Your task to perform on an android device: turn on the 24-hour format for clock Image 0: 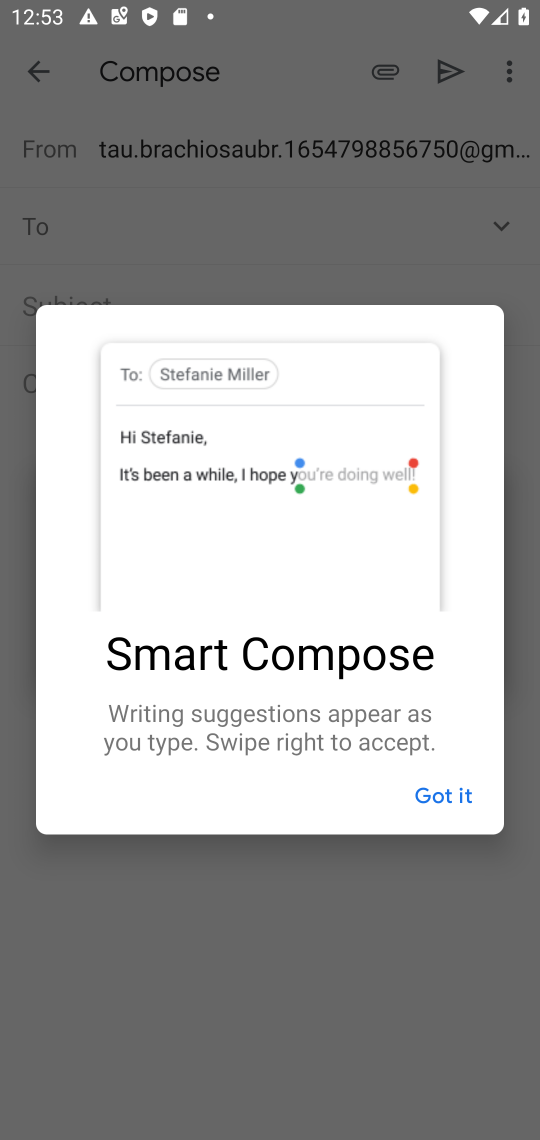
Step 0: press home button
Your task to perform on an android device: turn on the 24-hour format for clock Image 1: 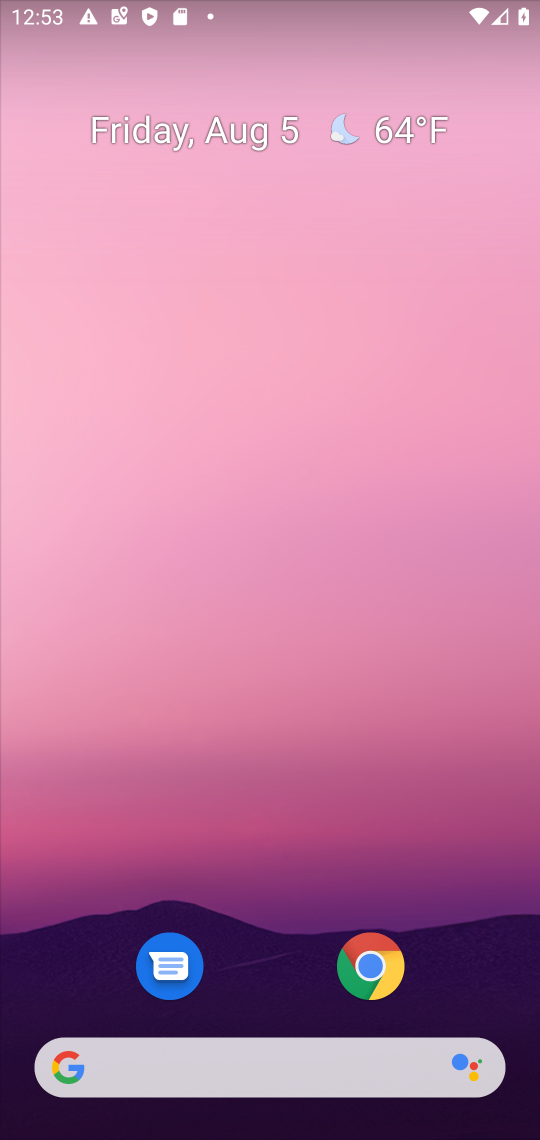
Step 1: drag from (288, 898) to (251, 26)
Your task to perform on an android device: turn on the 24-hour format for clock Image 2: 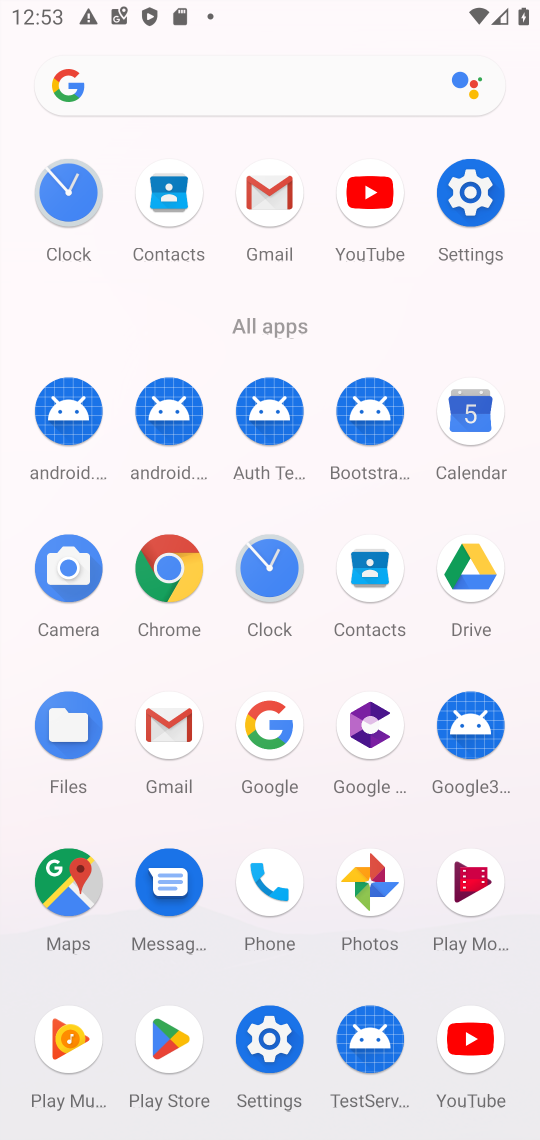
Step 2: click (81, 207)
Your task to perform on an android device: turn on the 24-hour format for clock Image 3: 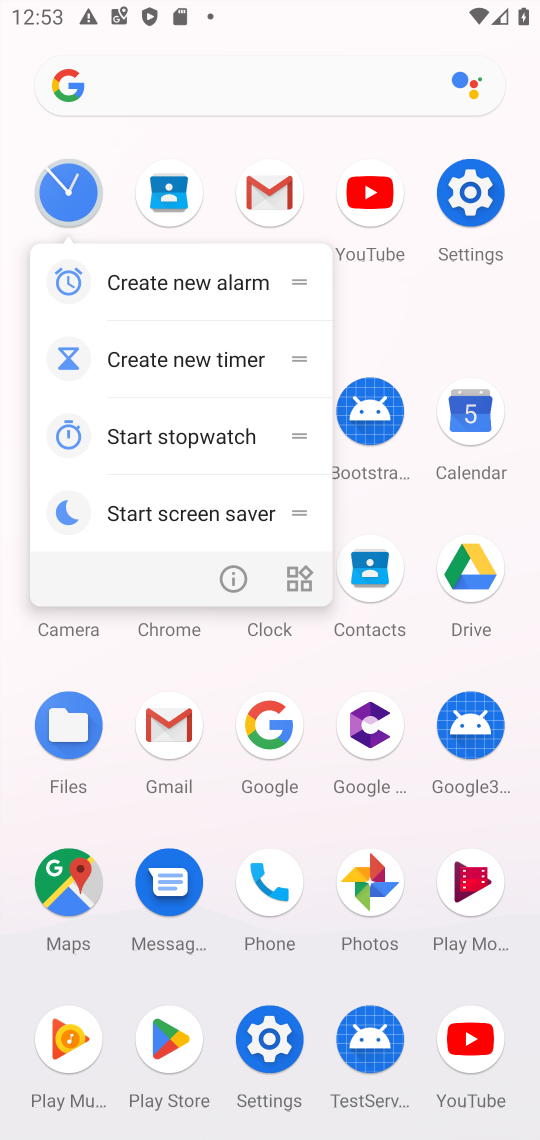
Step 3: click (79, 183)
Your task to perform on an android device: turn on the 24-hour format for clock Image 4: 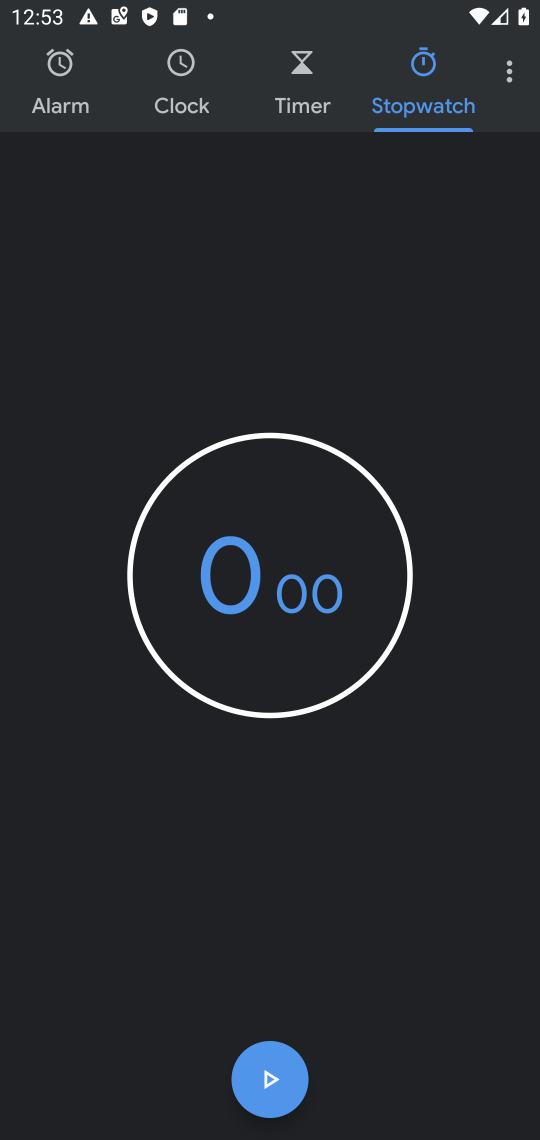
Step 4: click (508, 79)
Your task to perform on an android device: turn on the 24-hour format for clock Image 5: 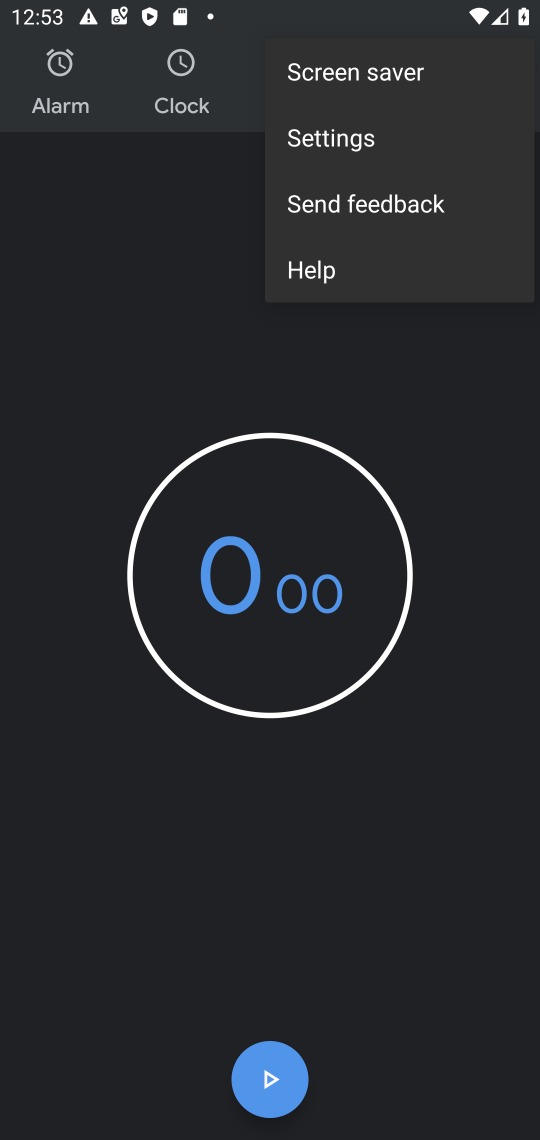
Step 5: click (373, 131)
Your task to perform on an android device: turn on the 24-hour format for clock Image 6: 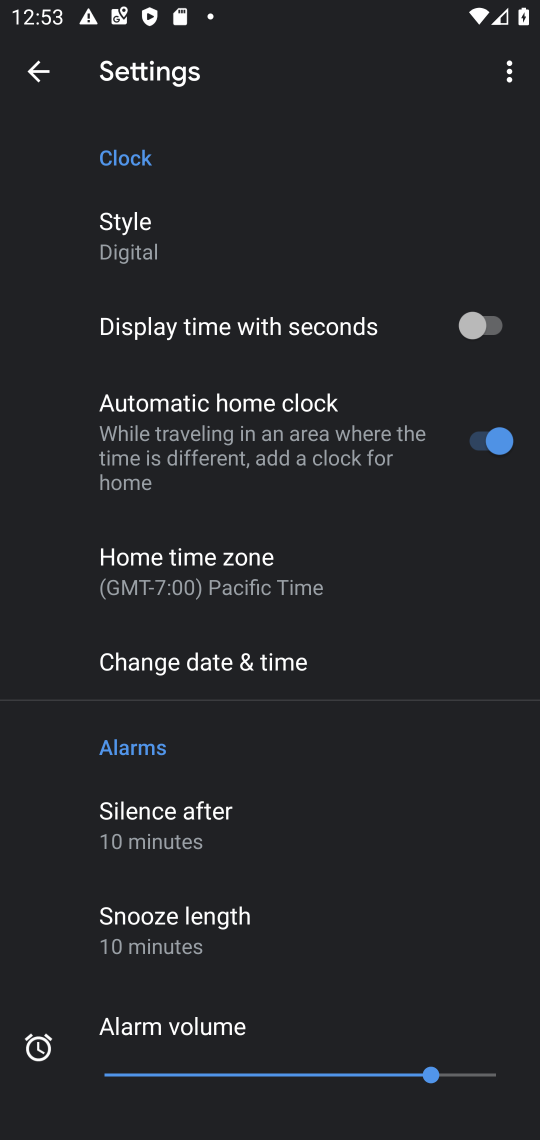
Step 6: click (312, 668)
Your task to perform on an android device: turn on the 24-hour format for clock Image 7: 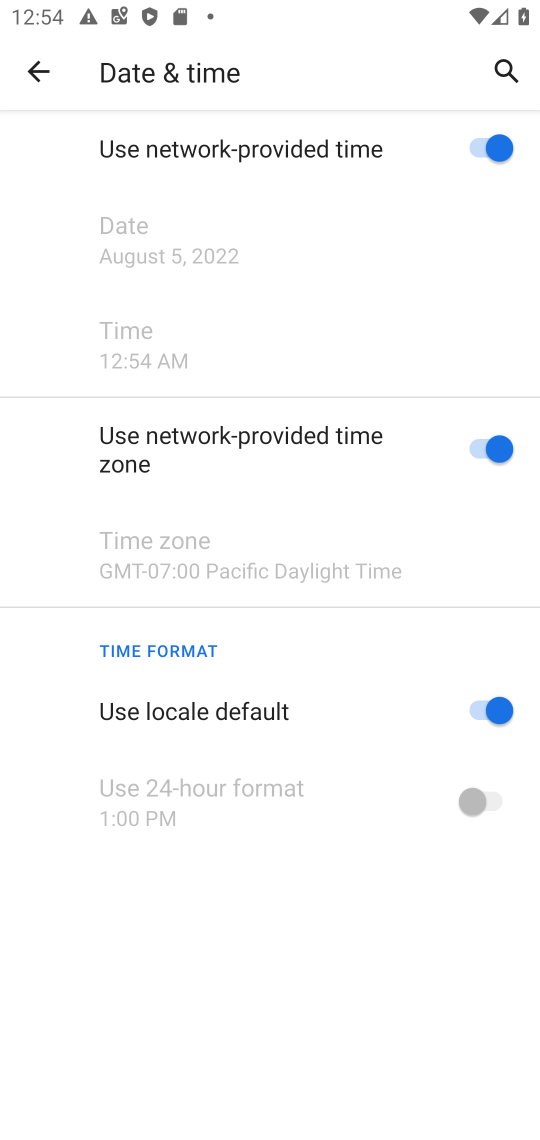
Step 7: click (479, 708)
Your task to perform on an android device: turn on the 24-hour format for clock Image 8: 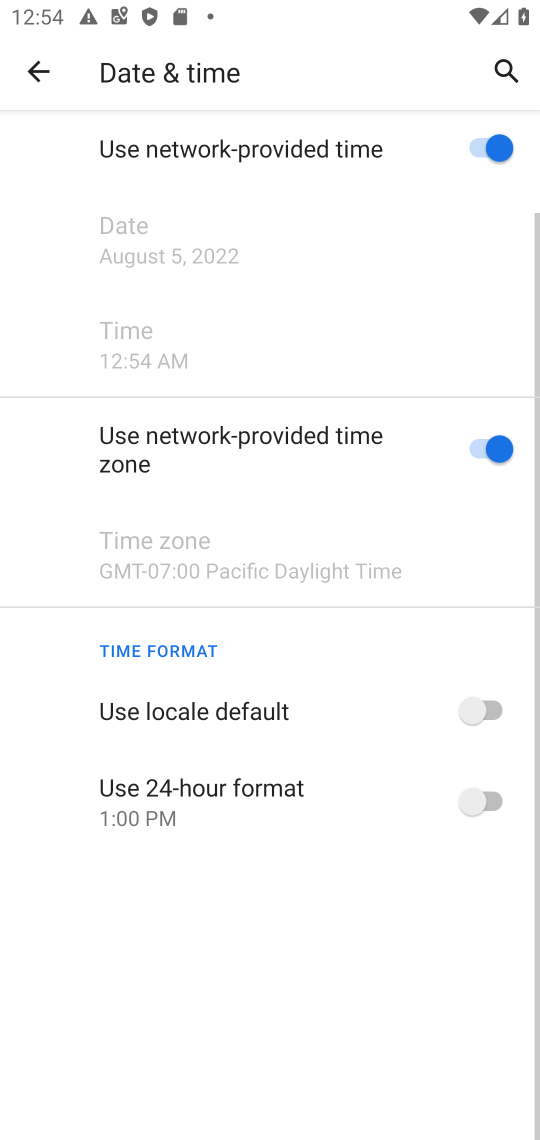
Step 8: click (486, 792)
Your task to perform on an android device: turn on the 24-hour format for clock Image 9: 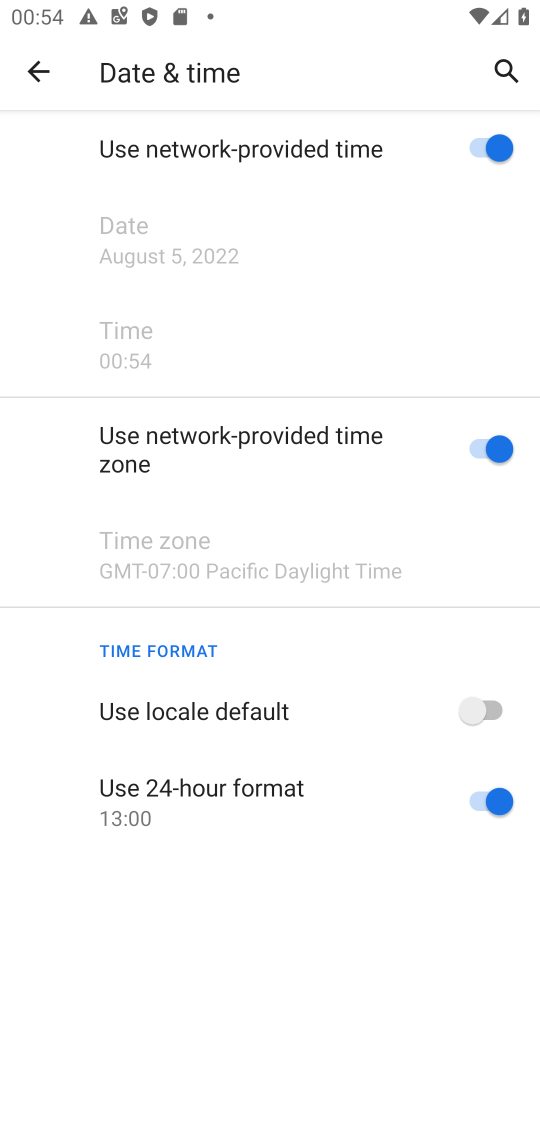
Step 9: task complete